Your task to perform on an android device: Play the last video I watched on Youtube Image 0: 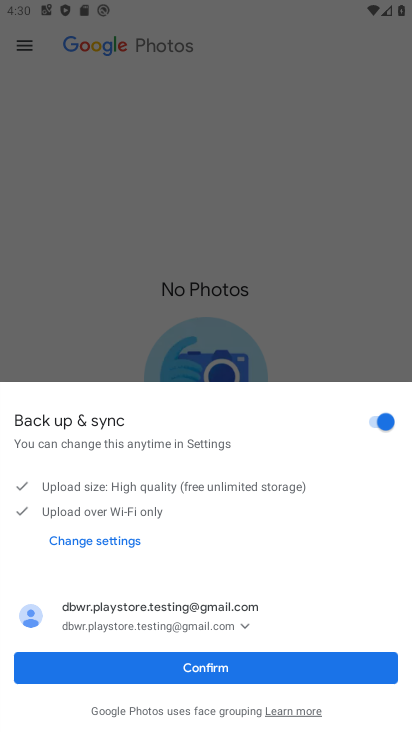
Step 0: press home button
Your task to perform on an android device: Play the last video I watched on Youtube Image 1: 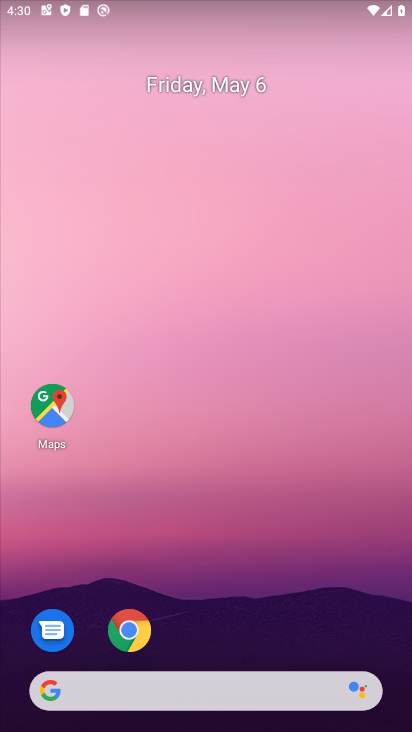
Step 1: drag from (202, 649) to (222, 70)
Your task to perform on an android device: Play the last video I watched on Youtube Image 2: 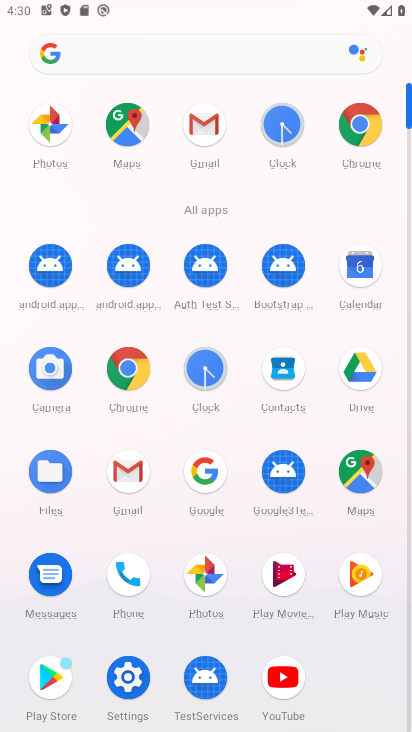
Step 2: click (291, 681)
Your task to perform on an android device: Play the last video I watched on Youtube Image 3: 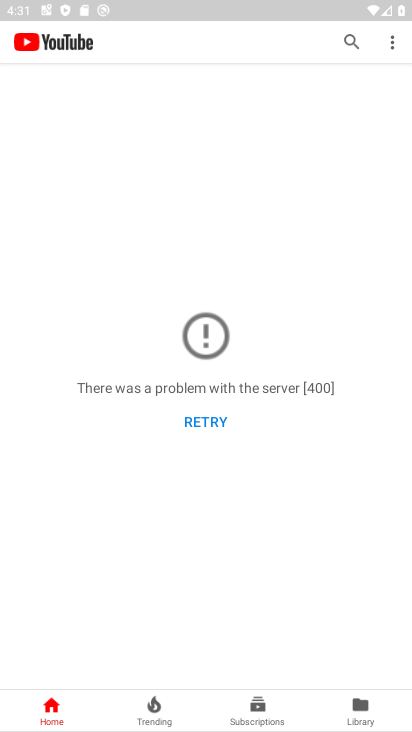
Step 3: click (343, 710)
Your task to perform on an android device: Play the last video I watched on Youtube Image 4: 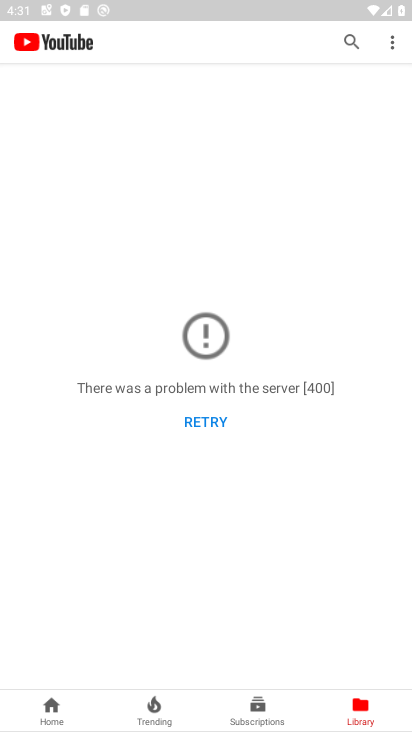
Step 4: click (201, 431)
Your task to perform on an android device: Play the last video I watched on Youtube Image 5: 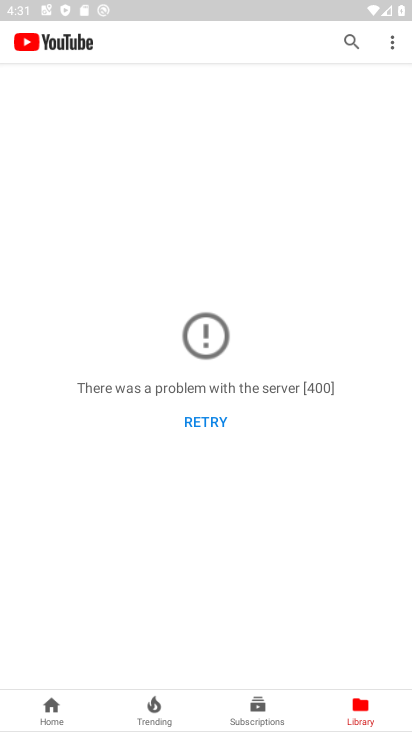
Step 5: click (216, 424)
Your task to perform on an android device: Play the last video I watched on Youtube Image 6: 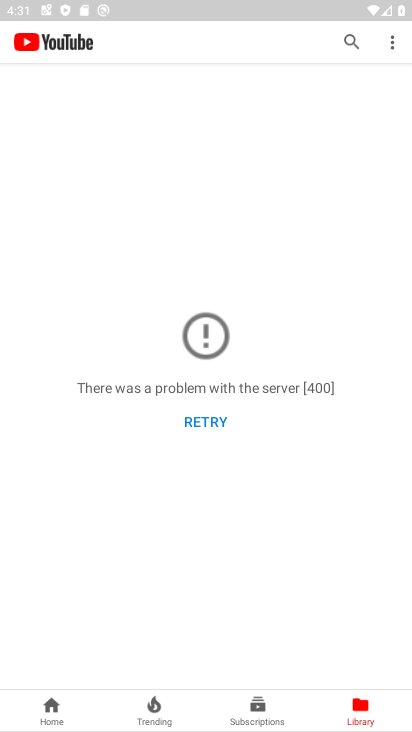
Step 6: click (216, 424)
Your task to perform on an android device: Play the last video I watched on Youtube Image 7: 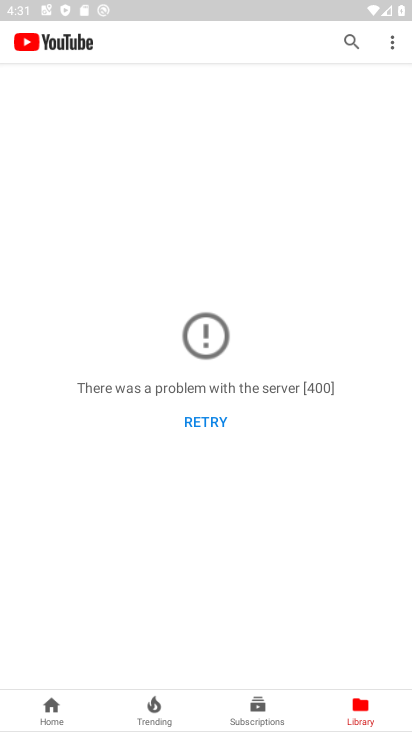
Step 7: task complete